Your task to perform on an android device: Check the news Image 0: 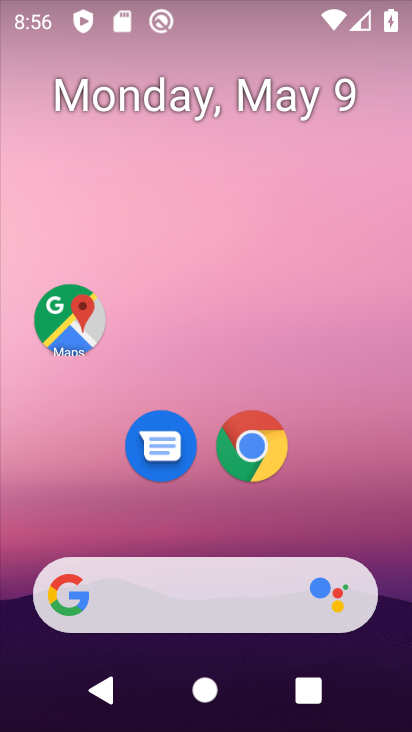
Step 0: click (204, 580)
Your task to perform on an android device: Check the news Image 1: 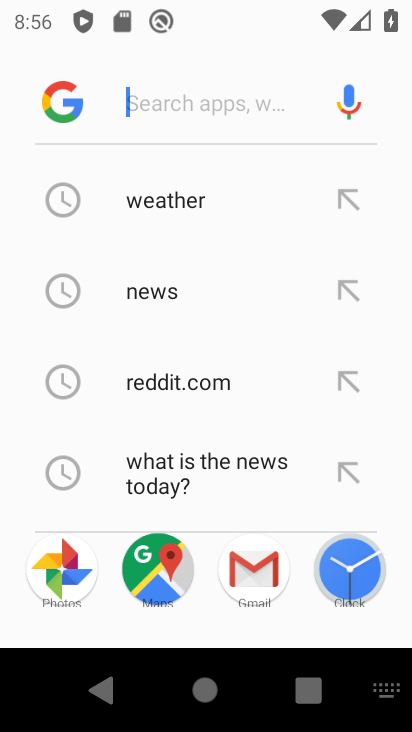
Step 1: click (182, 296)
Your task to perform on an android device: Check the news Image 2: 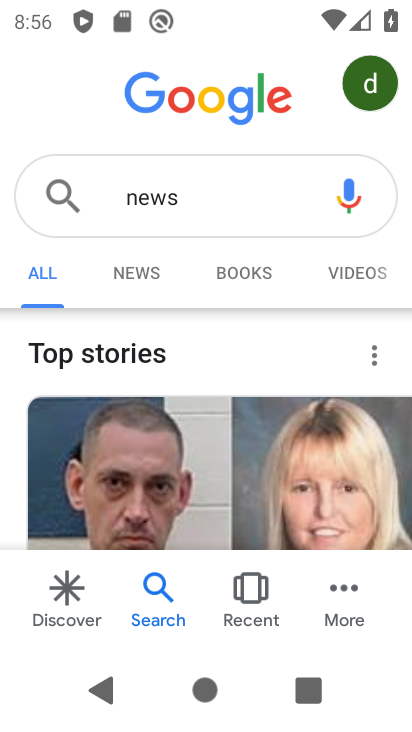
Step 2: drag from (181, 481) to (183, 244)
Your task to perform on an android device: Check the news Image 3: 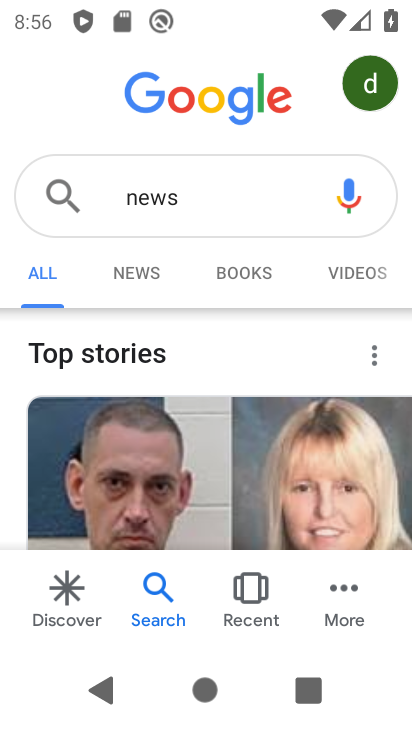
Step 3: click (142, 266)
Your task to perform on an android device: Check the news Image 4: 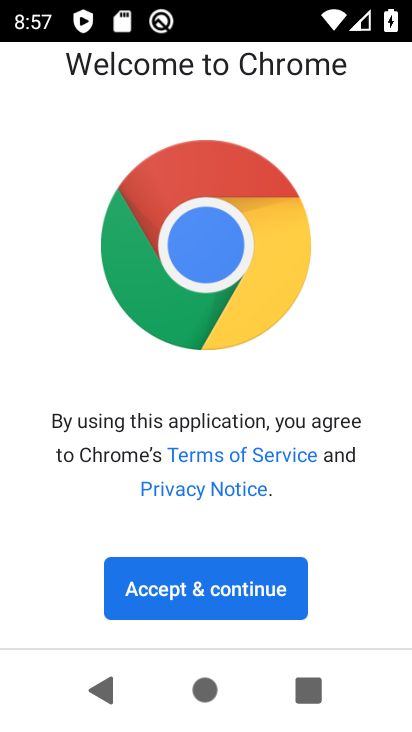
Step 4: press home button
Your task to perform on an android device: Check the news Image 5: 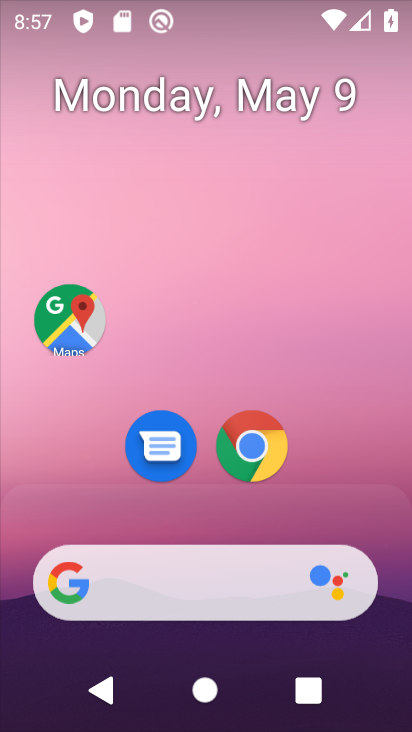
Step 5: click (217, 579)
Your task to perform on an android device: Check the news Image 6: 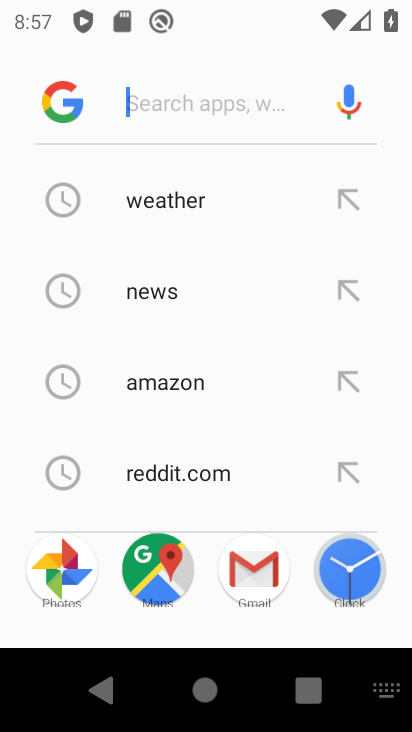
Step 6: click (162, 281)
Your task to perform on an android device: Check the news Image 7: 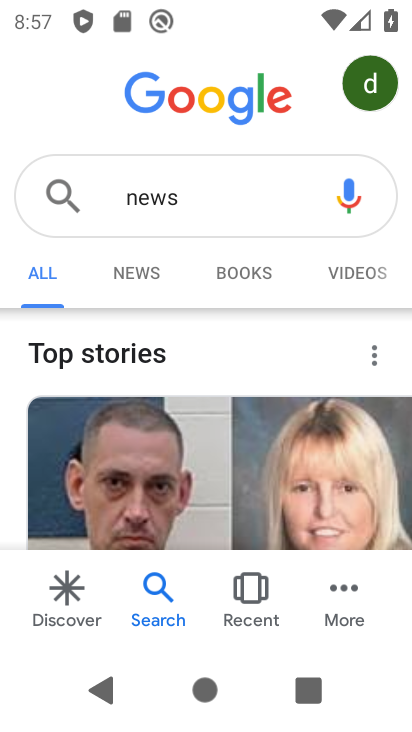
Step 7: click (136, 275)
Your task to perform on an android device: Check the news Image 8: 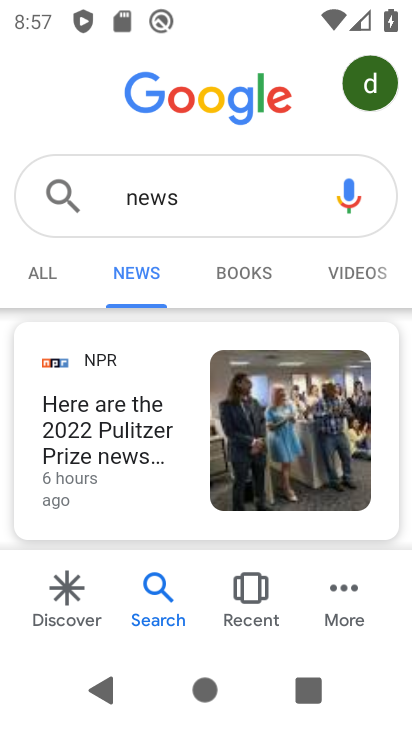
Step 8: task complete